Your task to perform on an android device: change the clock style Image 0: 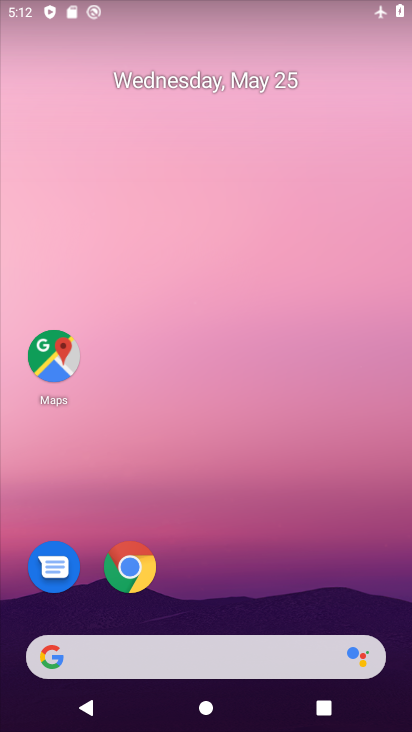
Step 0: drag from (234, 503) to (203, 29)
Your task to perform on an android device: change the clock style Image 1: 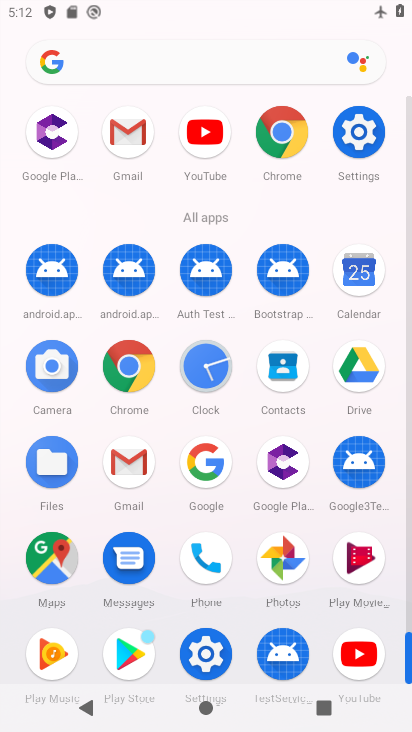
Step 1: drag from (0, 546) to (3, 208)
Your task to perform on an android device: change the clock style Image 2: 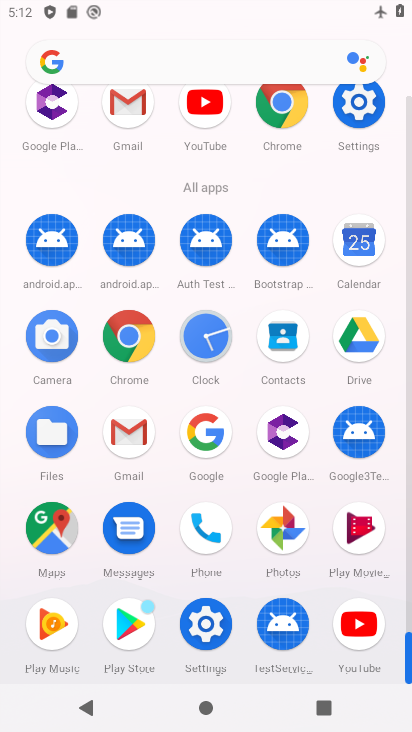
Step 2: click (202, 331)
Your task to perform on an android device: change the clock style Image 3: 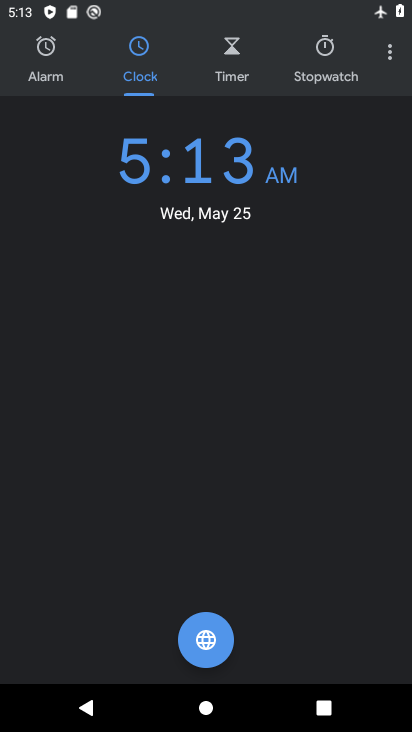
Step 3: drag from (384, 56) to (304, 112)
Your task to perform on an android device: change the clock style Image 4: 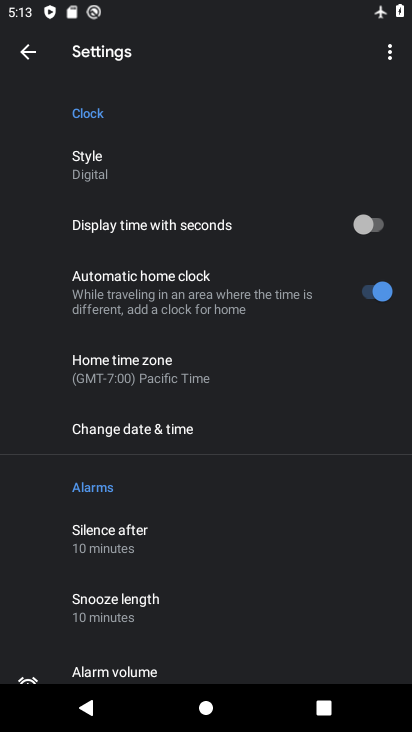
Step 4: click (144, 159)
Your task to perform on an android device: change the clock style Image 5: 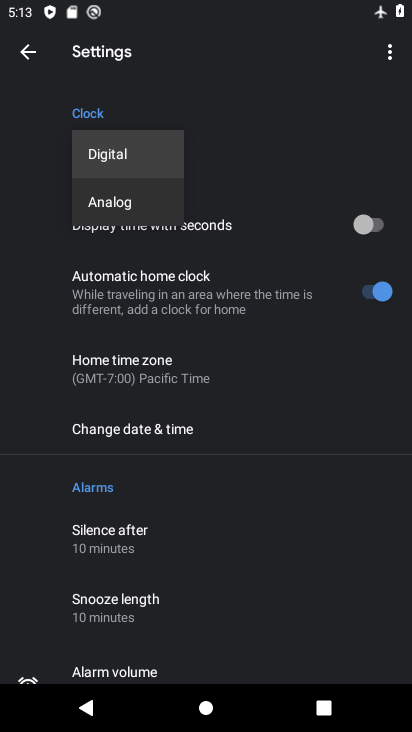
Step 5: click (129, 193)
Your task to perform on an android device: change the clock style Image 6: 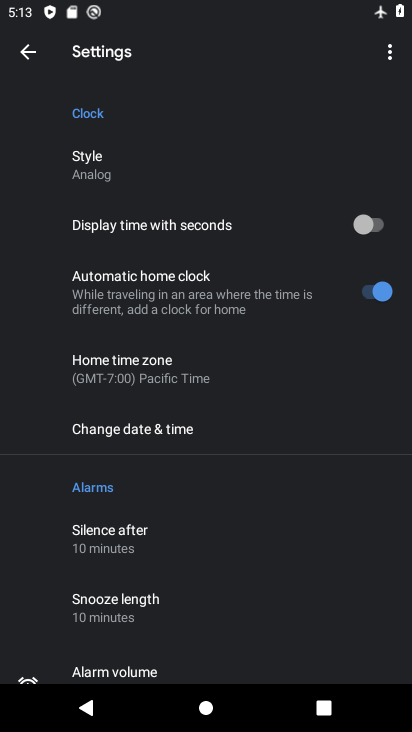
Step 6: task complete